Your task to perform on an android device: Go to eBay Image 0: 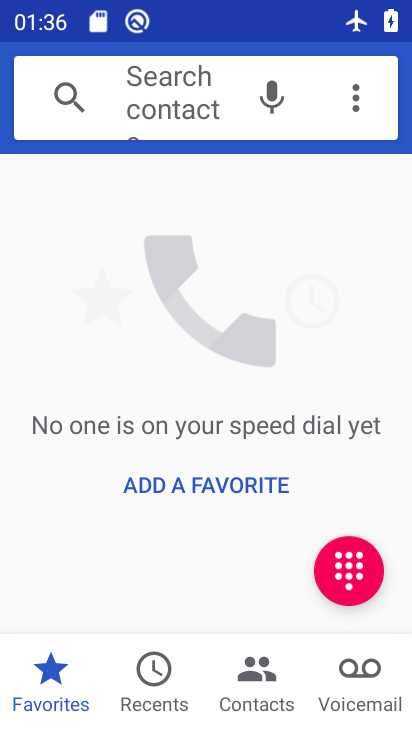
Step 0: press home button
Your task to perform on an android device: Go to eBay Image 1: 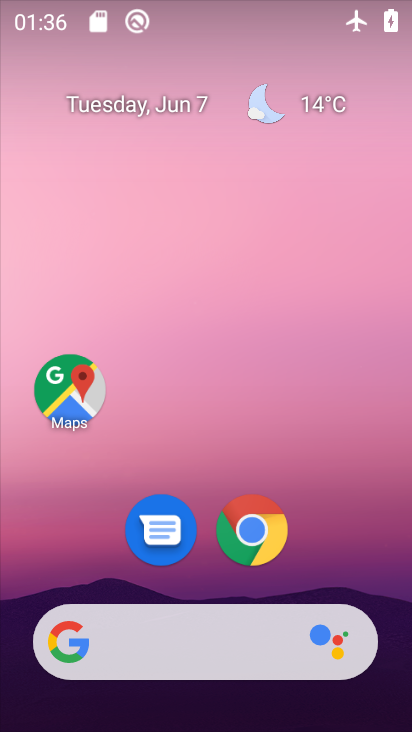
Step 1: click (244, 538)
Your task to perform on an android device: Go to eBay Image 2: 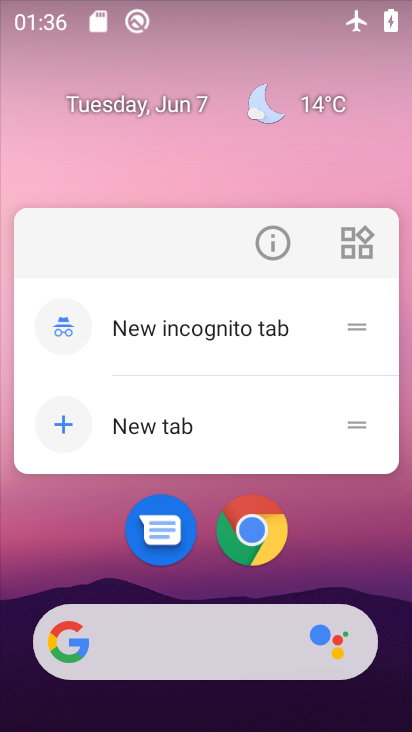
Step 2: click (257, 513)
Your task to perform on an android device: Go to eBay Image 3: 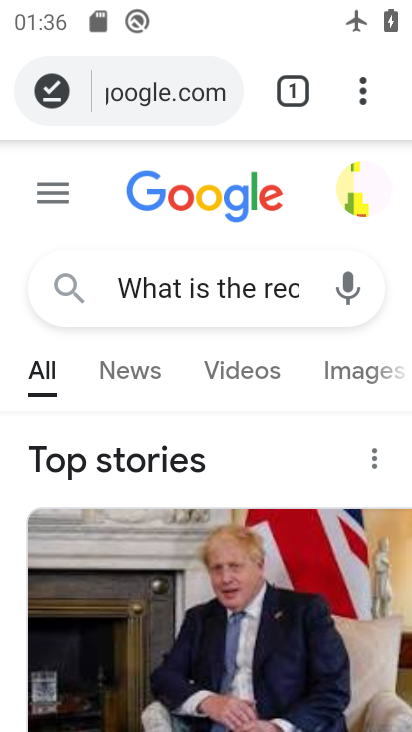
Step 3: click (359, 80)
Your task to perform on an android device: Go to eBay Image 4: 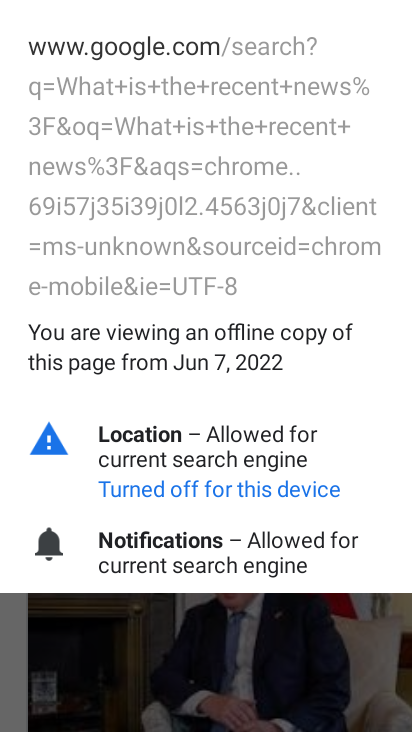
Step 4: press back button
Your task to perform on an android device: Go to eBay Image 5: 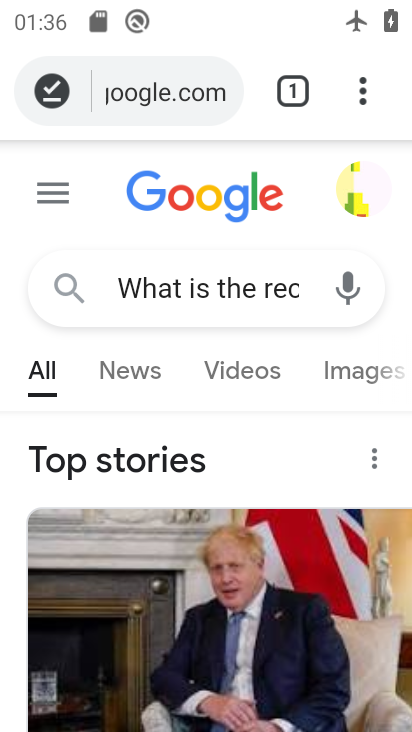
Step 5: click (375, 87)
Your task to perform on an android device: Go to eBay Image 6: 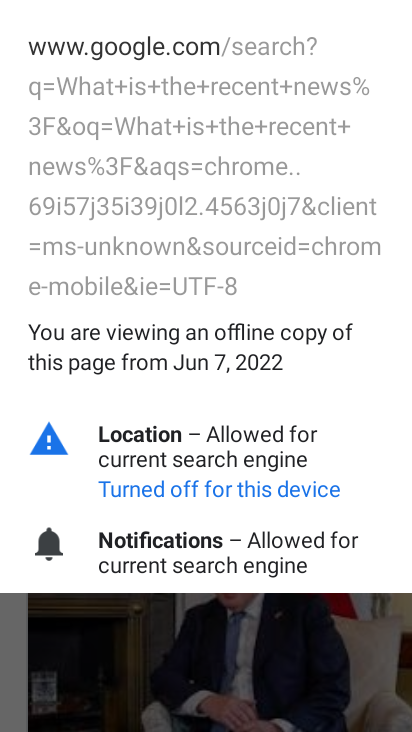
Step 6: press back button
Your task to perform on an android device: Go to eBay Image 7: 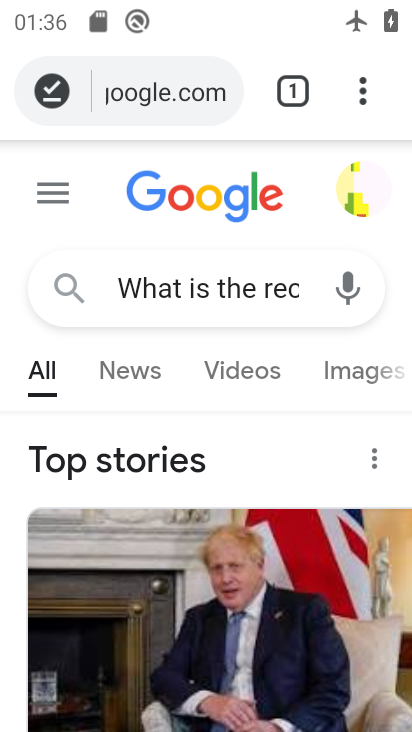
Step 7: click (360, 79)
Your task to perform on an android device: Go to eBay Image 8: 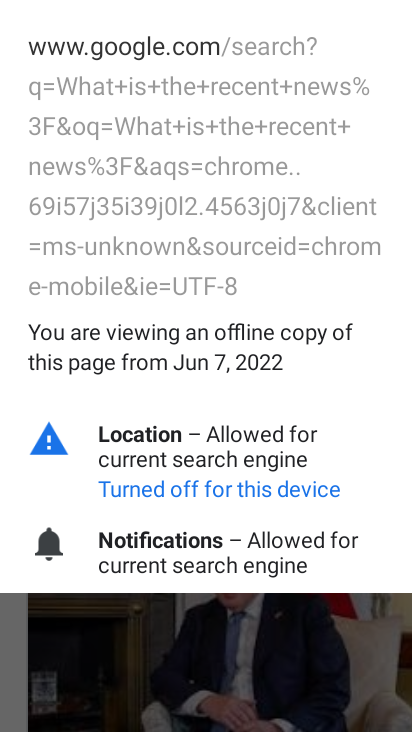
Step 8: press back button
Your task to perform on an android device: Go to eBay Image 9: 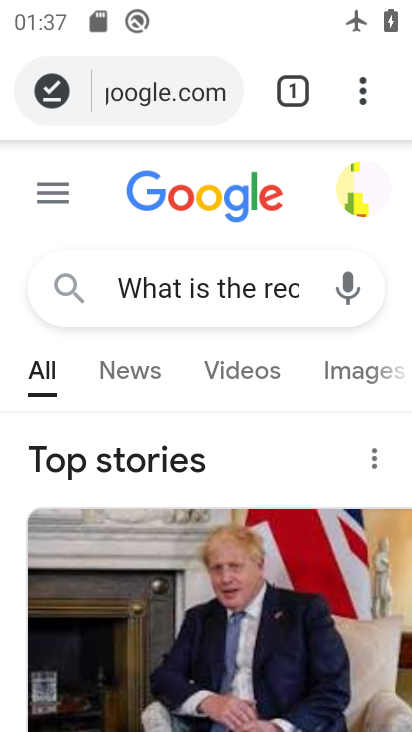
Step 9: click (368, 93)
Your task to perform on an android device: Go to eBay Image 10: 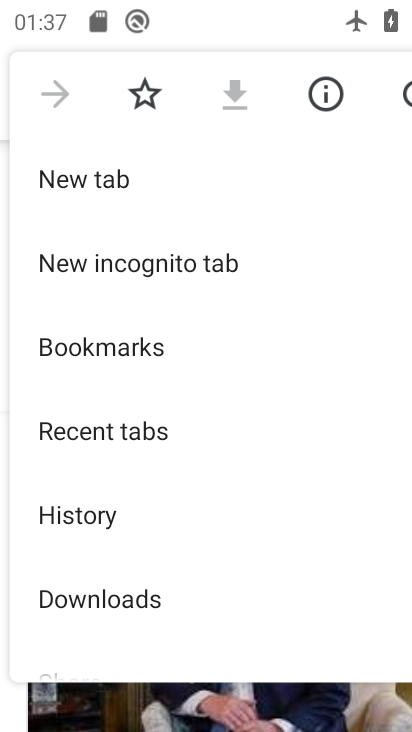
Step 10: click (118, 190)
Your task to perform on an android device: Go to eBay Image 11: 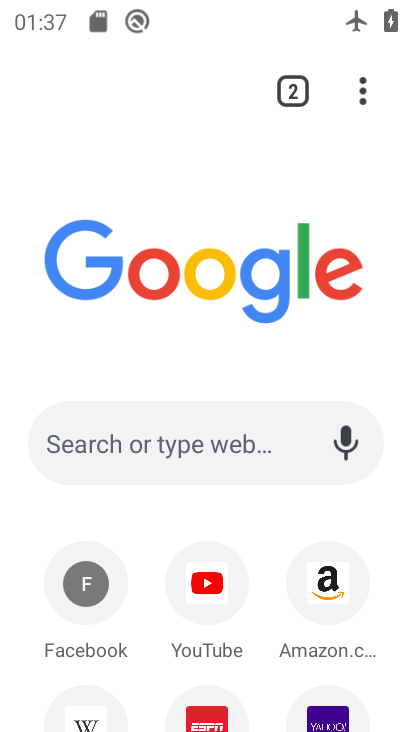
Step 11: click (238, 444)
Your task to perform on an android device: Go to eBay Image 12: 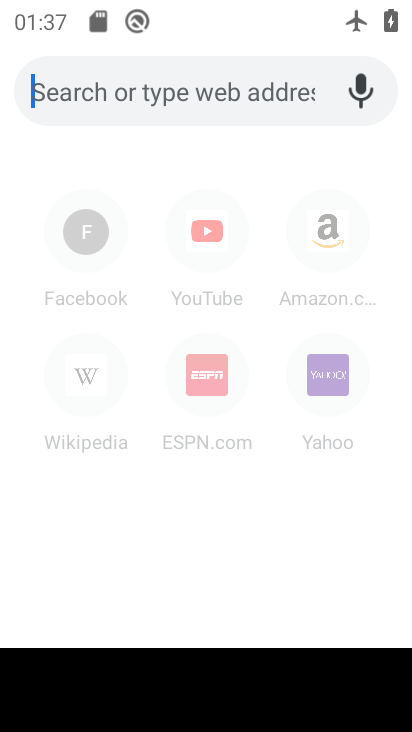
Step 12: type "eBay"
Your task to perform on an android device: Go to eBay Image 13: 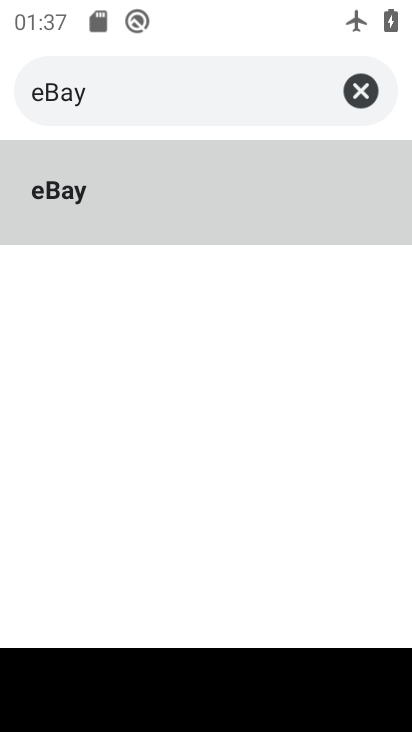
Step 13: click (116, 174)
Your task to perform on an android device: Go to eBay Image 14: 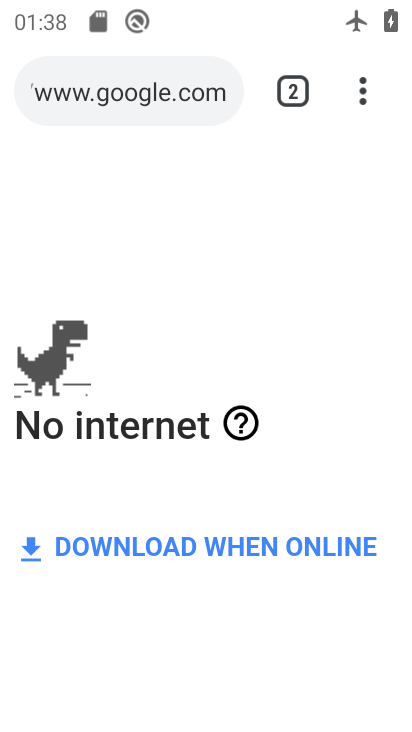
Step 14: task complete